Your task to perform on an android device: clear all cookies in the chrome app Image 0: 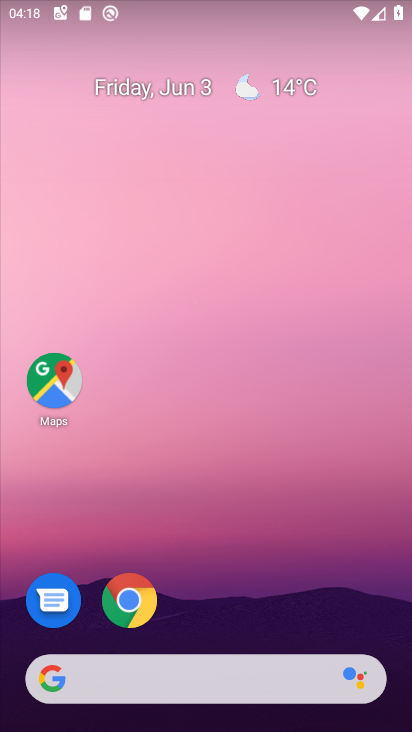
Step 0: click (126, 597)
Your task to perform on an android device: clear all cookies in the chrome app Image 1: 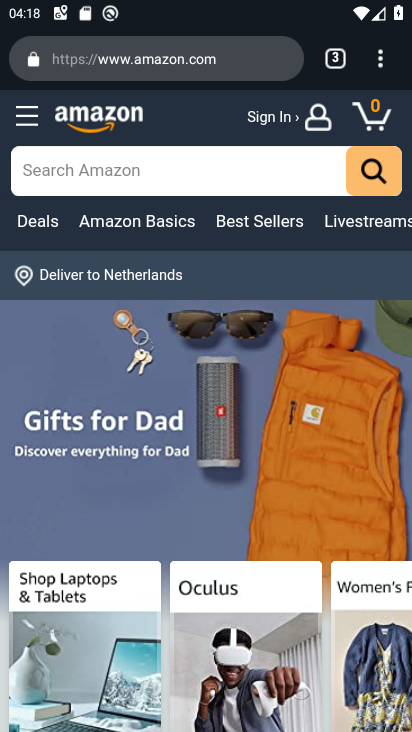
Step 1: drag from (389, 58) to (252, 632)
Your task to perform on an android device: clear all cookies in the chrome app Image 2: 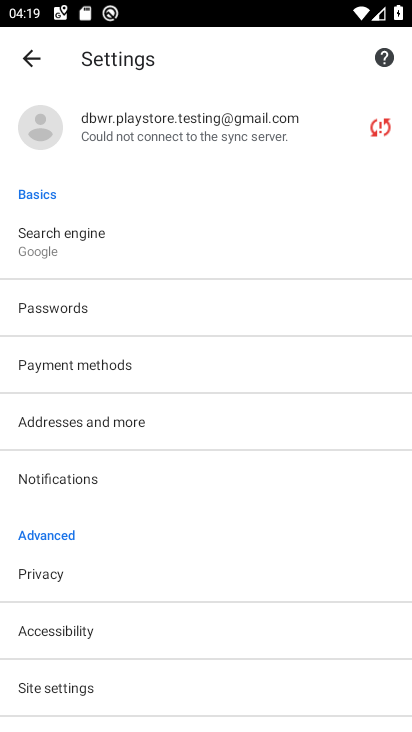
Step 2: click (26, 56)
Your task to perform on an android device: clear all cookies in the chrome app Image 3: 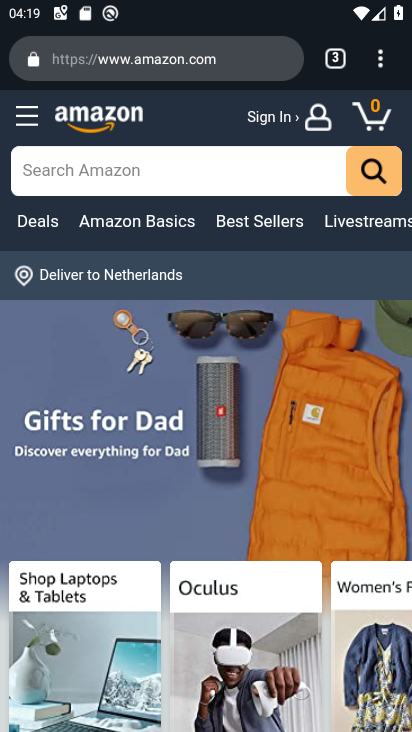
Step 3: drag from (388, 55) to (211, 336)
Your task to perform on an android device: clear all cookies in the chrome app Image 4: 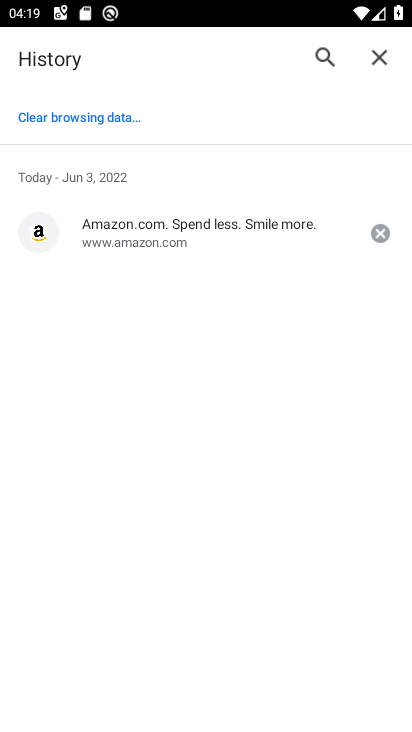
Step 4: click (73, 114)
Your task to perform on an android device: clear all cookies in the chrome app Image 5: 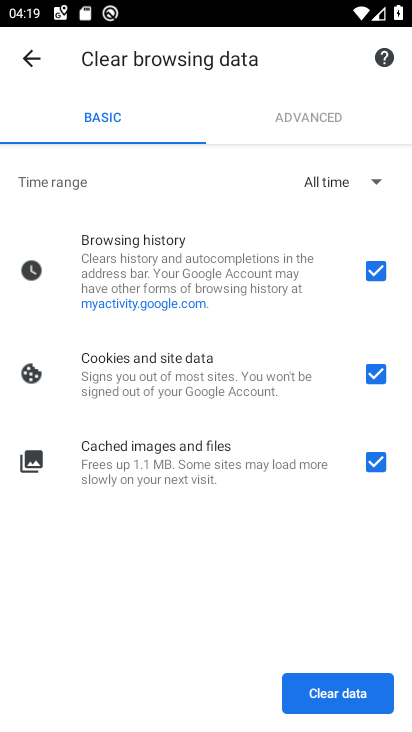
Step 5: click (332, 687)
Your task to perform on an android device: clear all cookies in the chrome app Image 6: 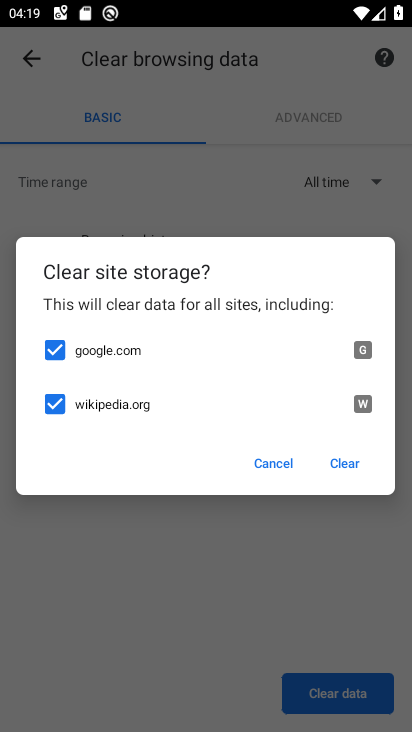
Step 6: click (361, 460)
Your task to perform on an android device: clear all cookies in the chrome app Image 7: 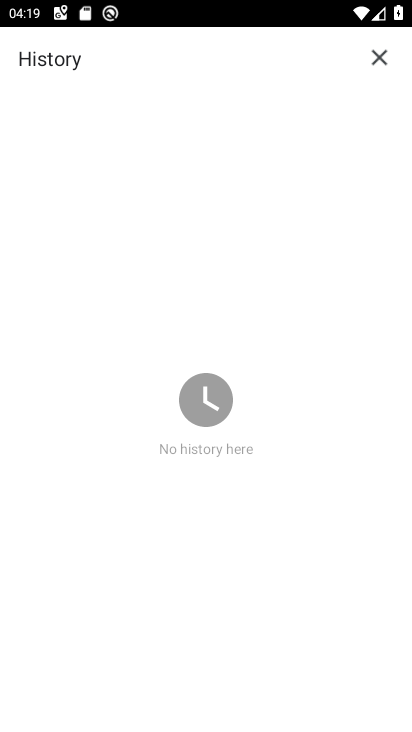
Step 7: task complete